Your task to perform on an android device: turn notification dots on Image 0: 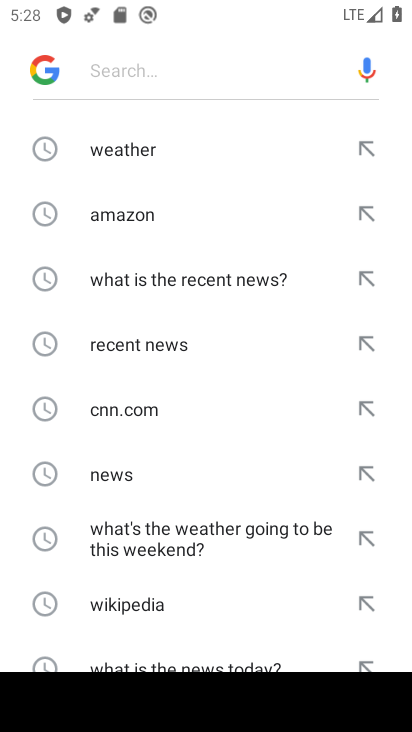
Step 0: press home button
Your task to perform on an android device: turn notification dots on Image 1: 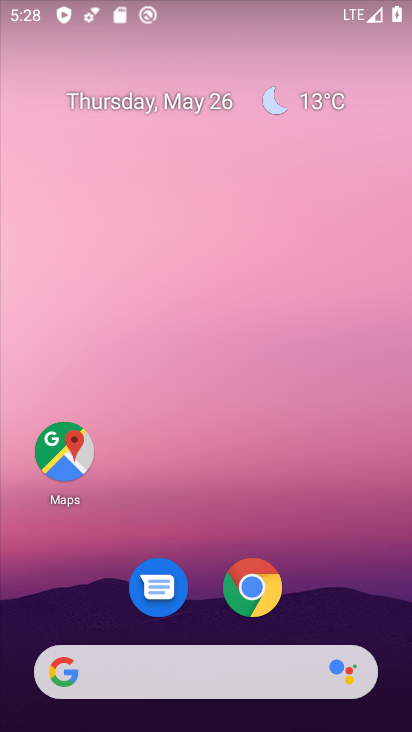
Step 1: drag from (196, 730) to (204, 66)
Your task to perform on an android device: turn notification dots on Image 2: 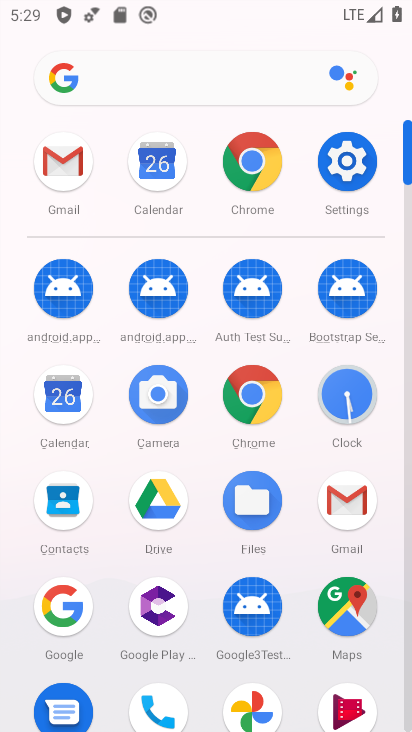
Step 2: click (344, 164)
Your task to perform on an android device: turn notification dots on Image 3: 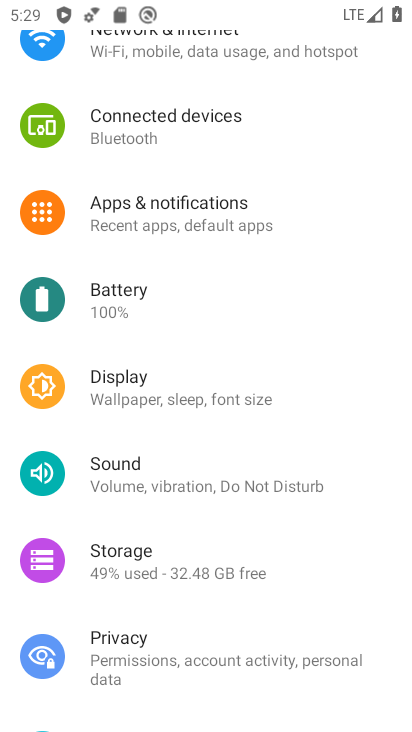
Step 3: click (220, 197)
Your task to perform on an android device: turn notification dots on Image 4: 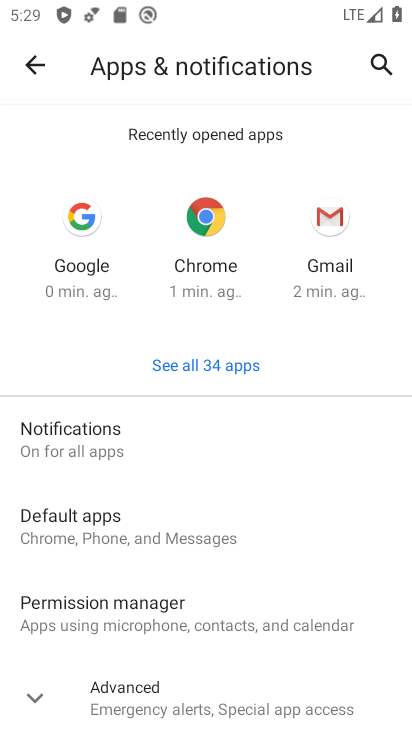
Step 4: click (72, 441)
Your task to perform on an android device: turn notification dots on Image 5: 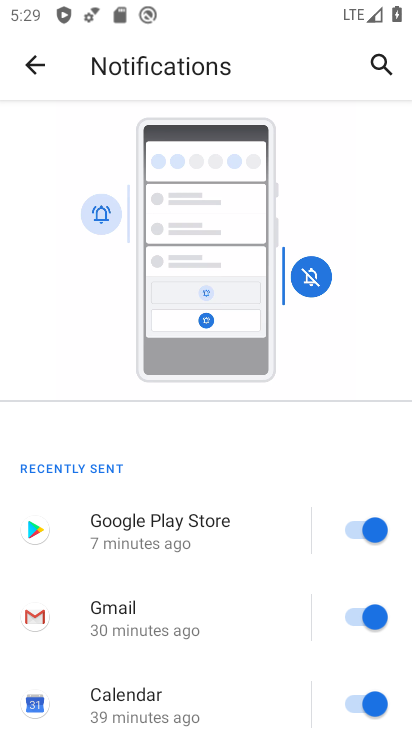
Step 5: drag from (185, 707) to (207, 286)
Your task to perform on an android device: turn notification dots on Image 6: 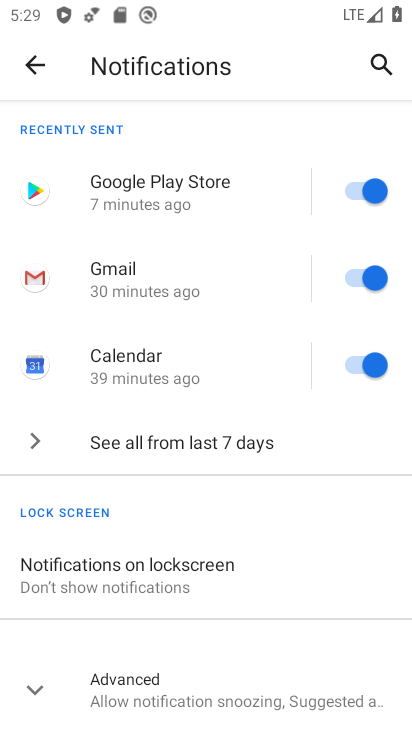
Step 6: drag from (145, 650) to (119, 246)
Your task to perform on an android device: turn notification dots on Image 7: 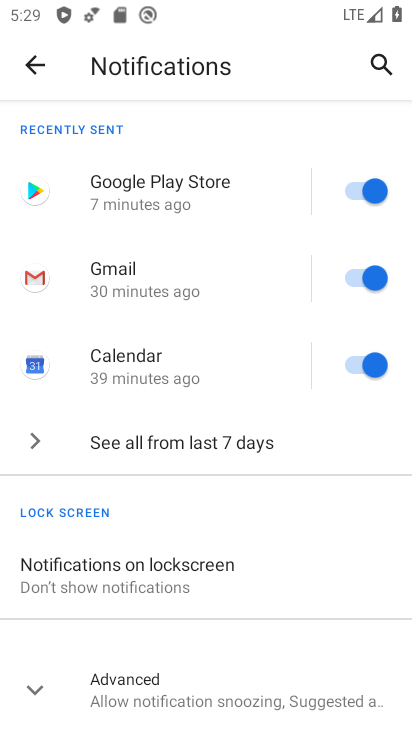
Step 7: click (125, 679)
Your task to perform on an android device: turn notification dots on Image 8: 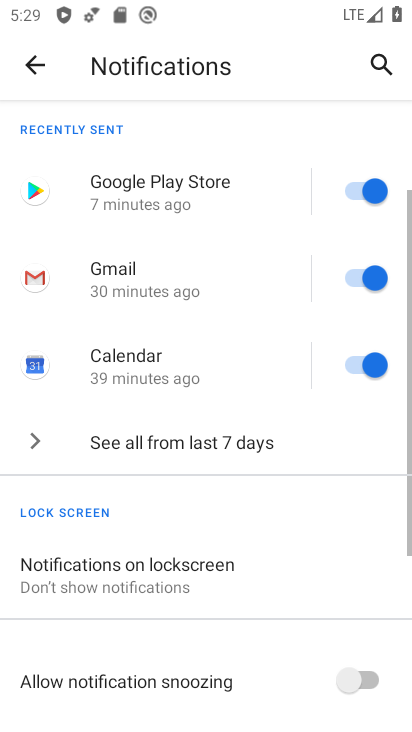
Step 8: drag from (210, 688) to (235, 418)
Your task to perform on an android device: turn notification dots on Image 9: 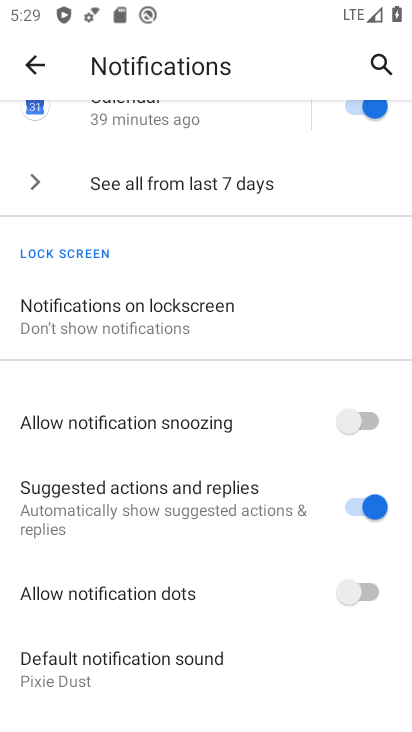
Step 9: click (365, 593)
Your task to perform on an android device: turn notification dots on Image 10: 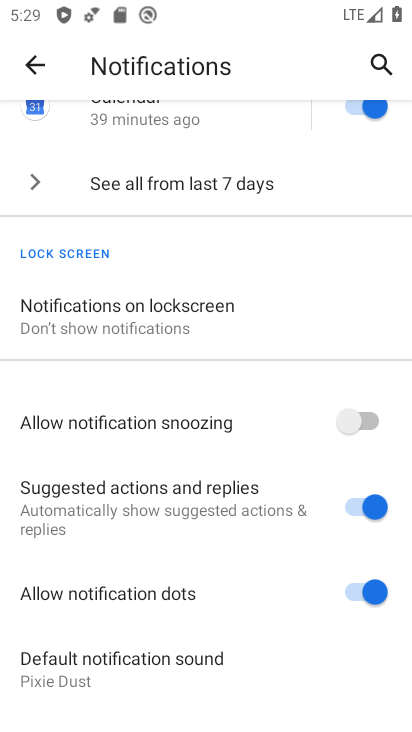
Step 10: task complete